Your task to perform on an android device: Go to settings Image 0: 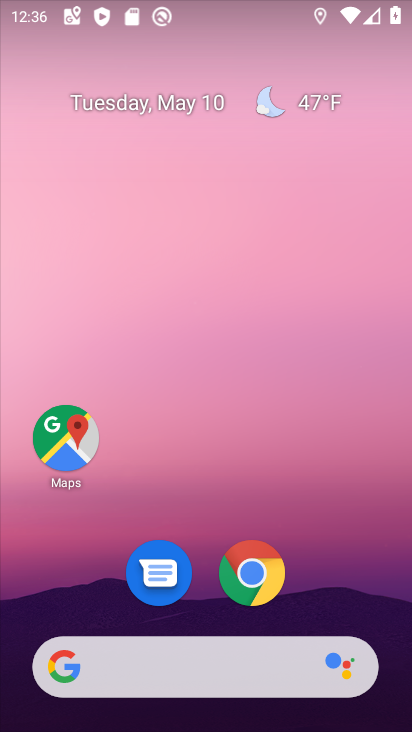
Step 0: click (244, 269)
Your task to perform on an android device: Go to settings Image 1: 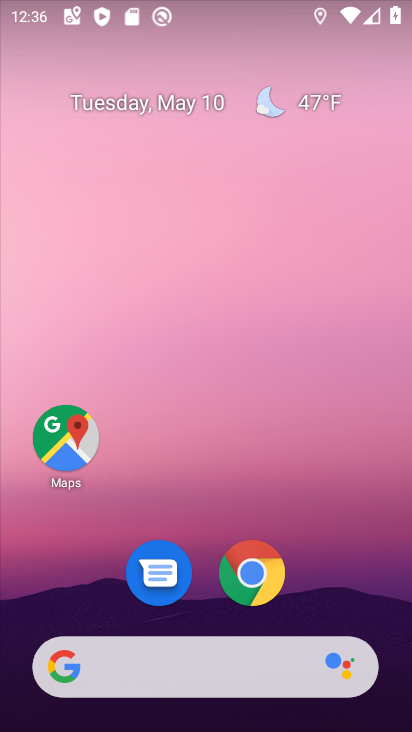
Step 1: drag from (205, 608) to (193, 226)
Your task to perform on an android device: Go to settings Image 2: 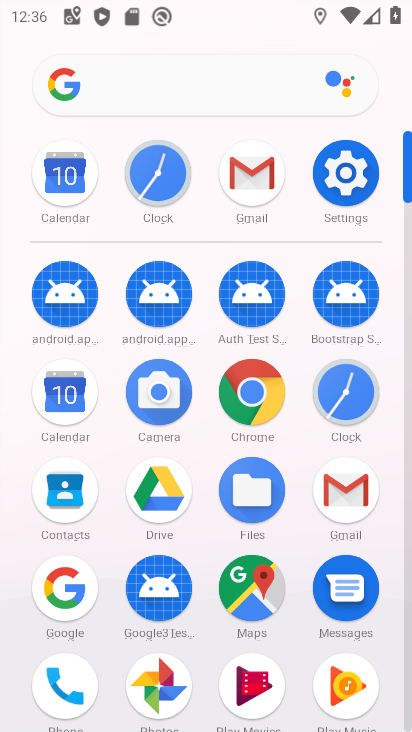
Step 2: click (340, 176)
Your task to perform on an android device: Go to settings Image 3: 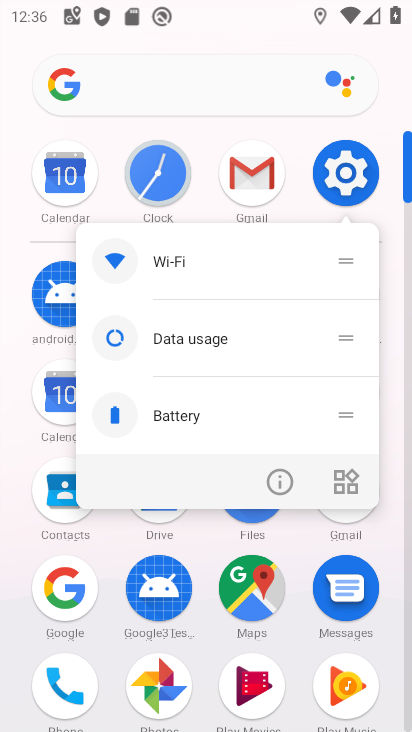
Step 3: click (283, 478)
Your task to perform on an android device: Go to settings Image 4: 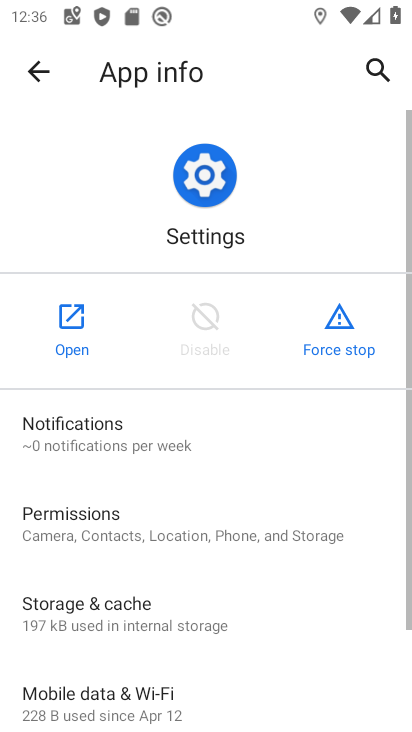
Step 4: click (65, 340)
Your task to perform on an android device: Go to settings Image 5: 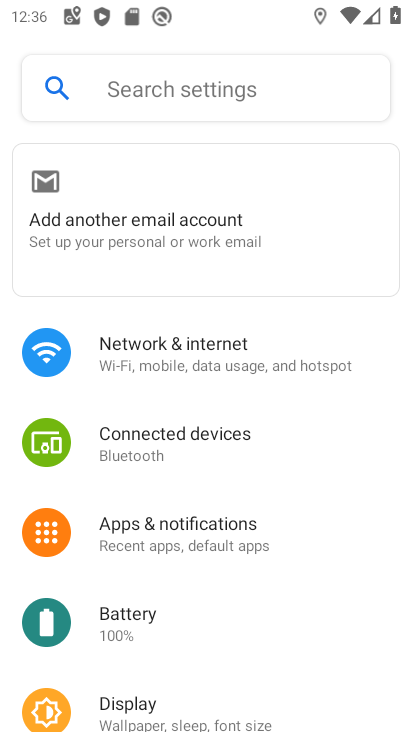
Step 5: task complete